Your task to perform on an android device: turn off notifications settings in the gmail app Image 0: 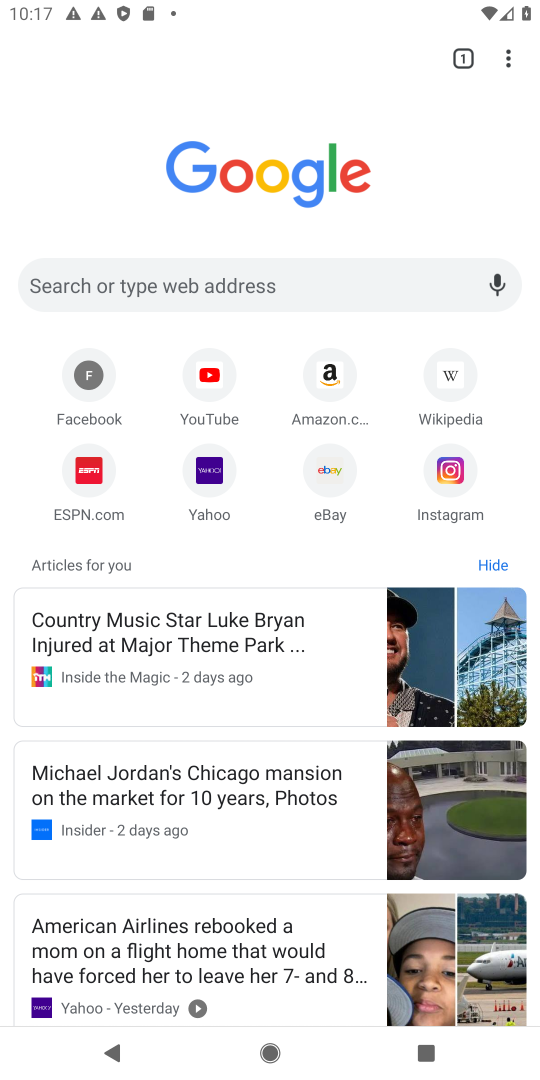
Step 0: task complete